Your task to perform on an android device: set the timer Image 0: 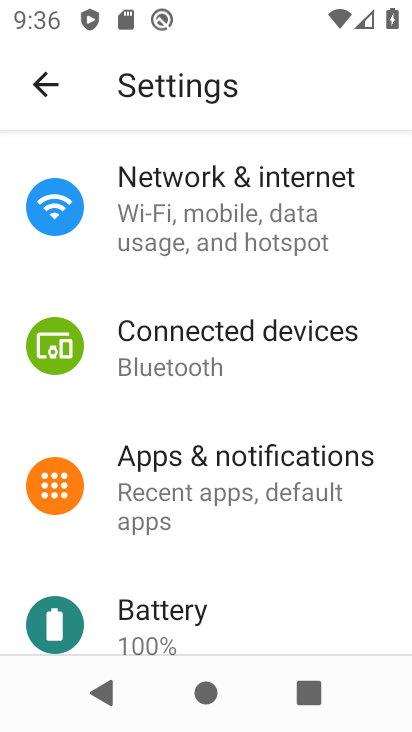
Step 0: press home button
Your task to perform on an android device: set the timer Image 1: 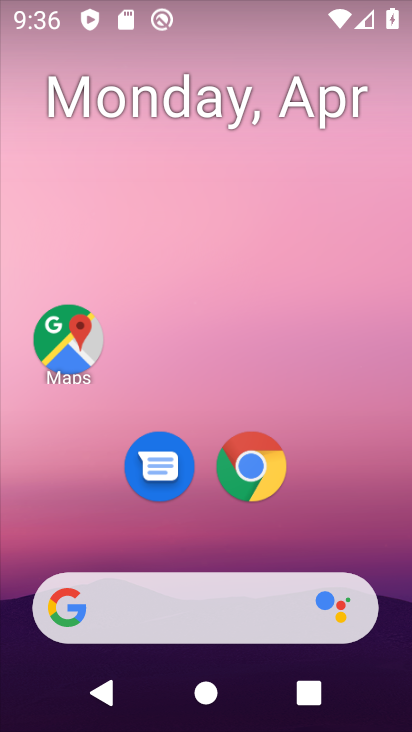
Step 1: drag from (245, 557) to (273, 47)
Your task to perform on an android device: set the timer Image 2: 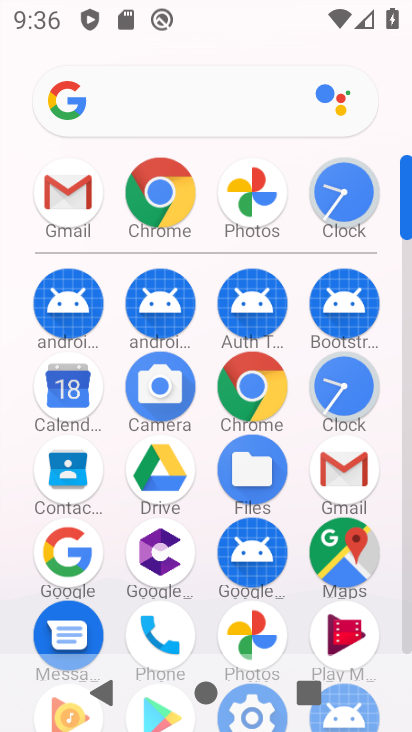
Step 2: click (349, 197)
Your task to perform on an android device: set the timer Image 3: 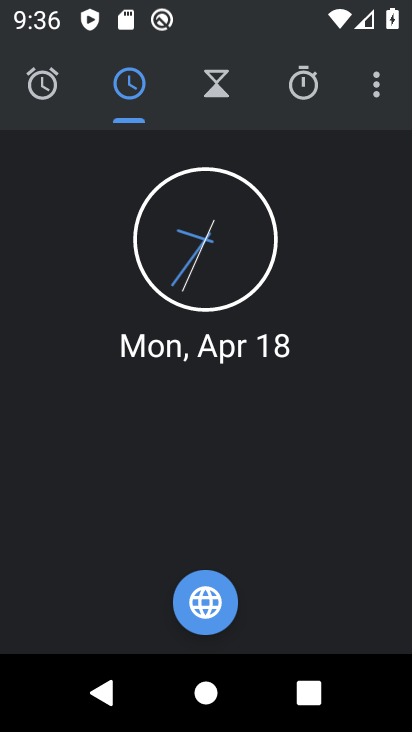
Step 3: click (215, 85)
Your task to perform on an android device: set the timer Image 4: 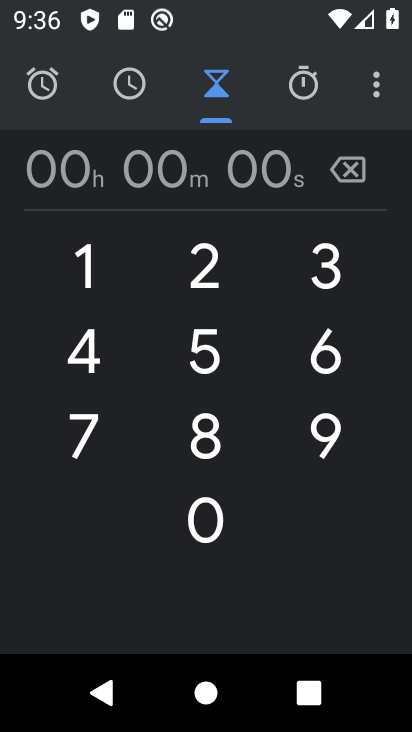
Step 4: type "123"
Your task to perform on an android device: set the timer Image 5: 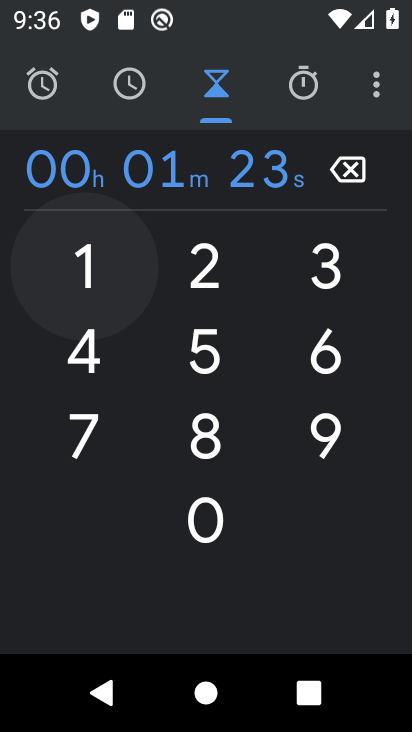
Step 5: type ""
Your task to perform on an android device: set the timer Image 6: 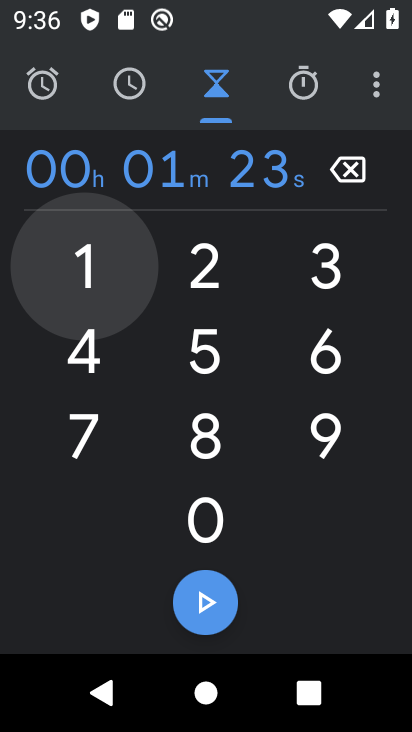
Step 6: click (223, 610)
Your task to perform on an android device: set the timer Image 7: 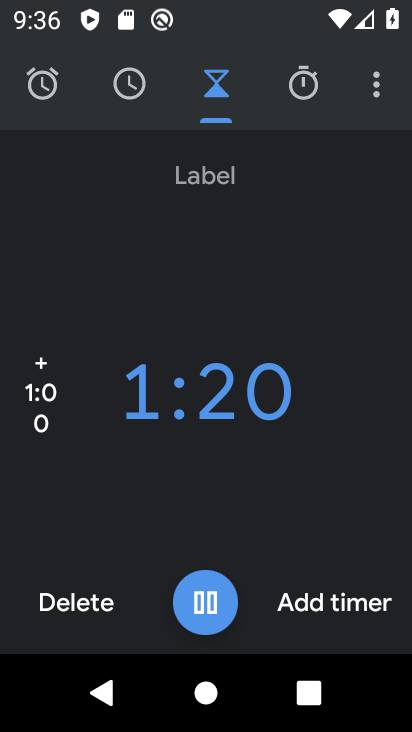
Step 7: click (223, 610)
Your task to perform on an android device: set the timer Image 8: 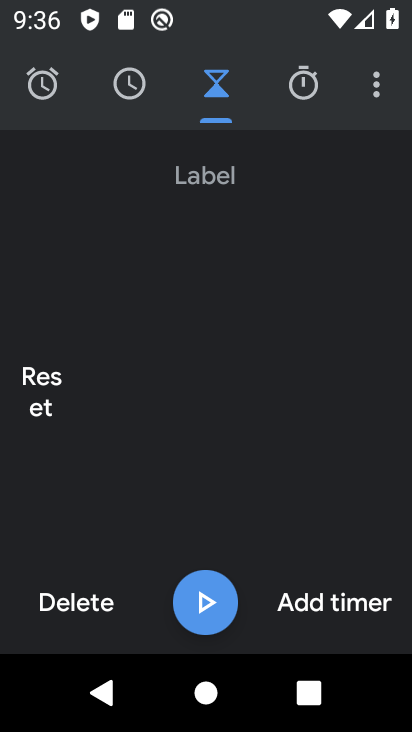
Step 8: task complete